Your task to perform on an android device: change notification settings in the gmail app Image 0: 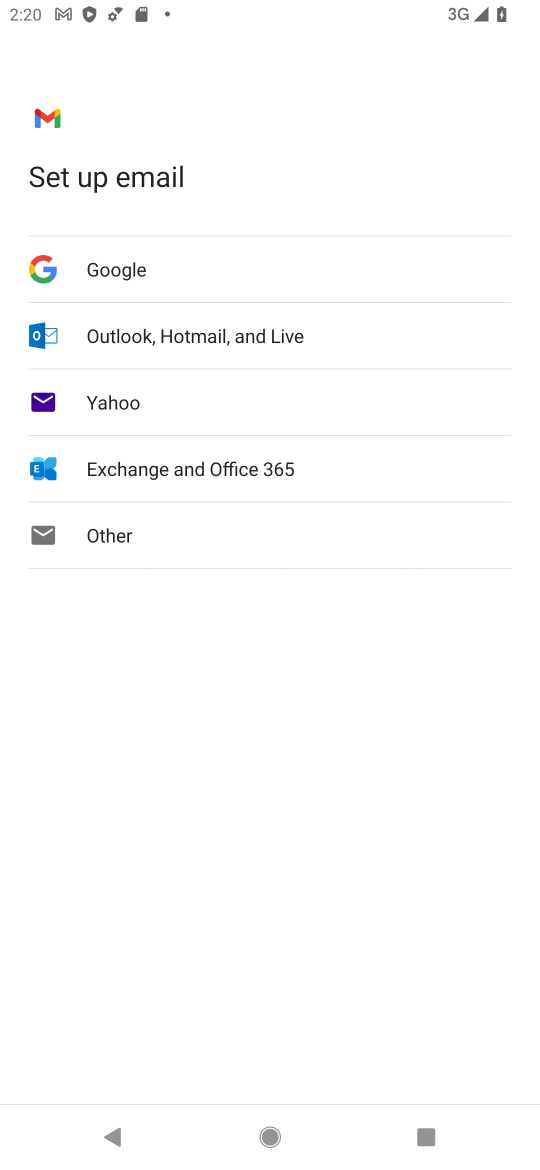
Step 0: press home button
Your task to perform on an android device: change notification settings in the gmail app Image 1: 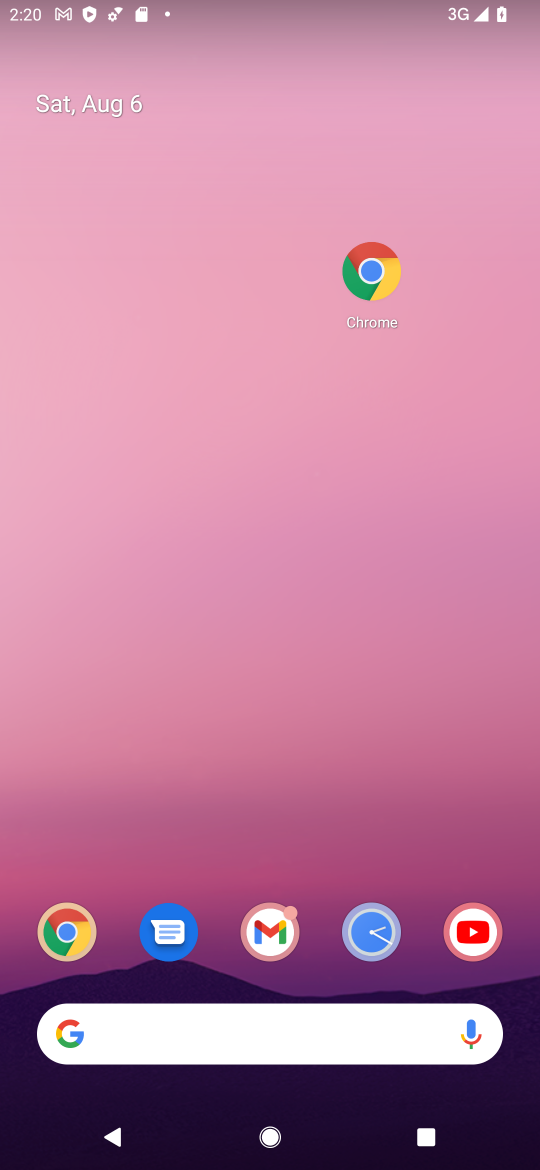
Step 1: click (270, 932)
Your task to perform on an android device: change notification settings in the gmail app Image 2: 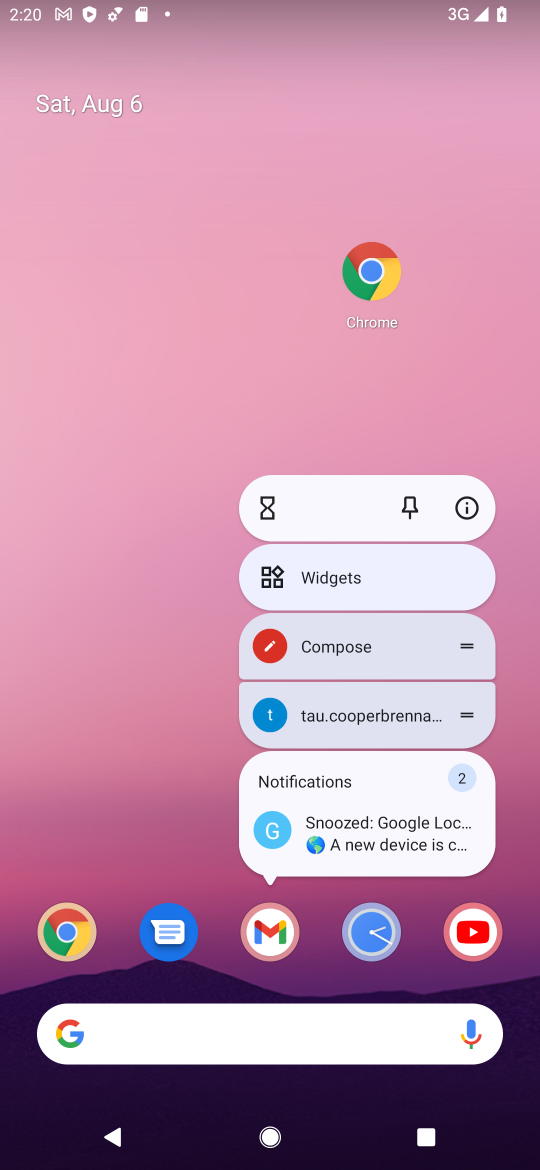
Step 2: click (460, 507)
Your task to perform on an android device: change notification settings in the gmail app Image 3: 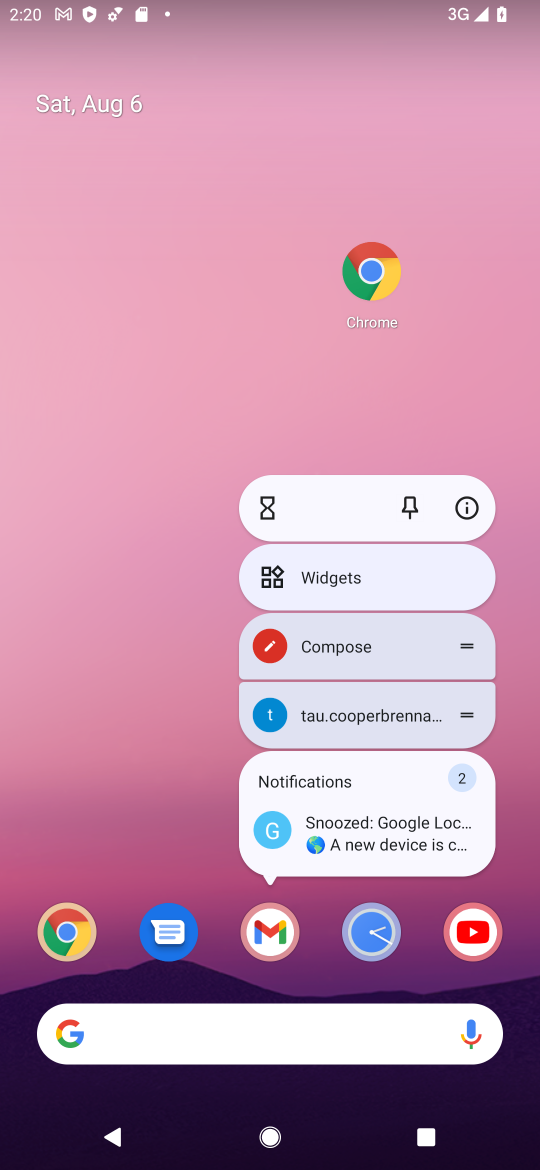
Step 3: click (468, 502)
Your task to perform on an android device: change notification settings in the gmail app Image 4: 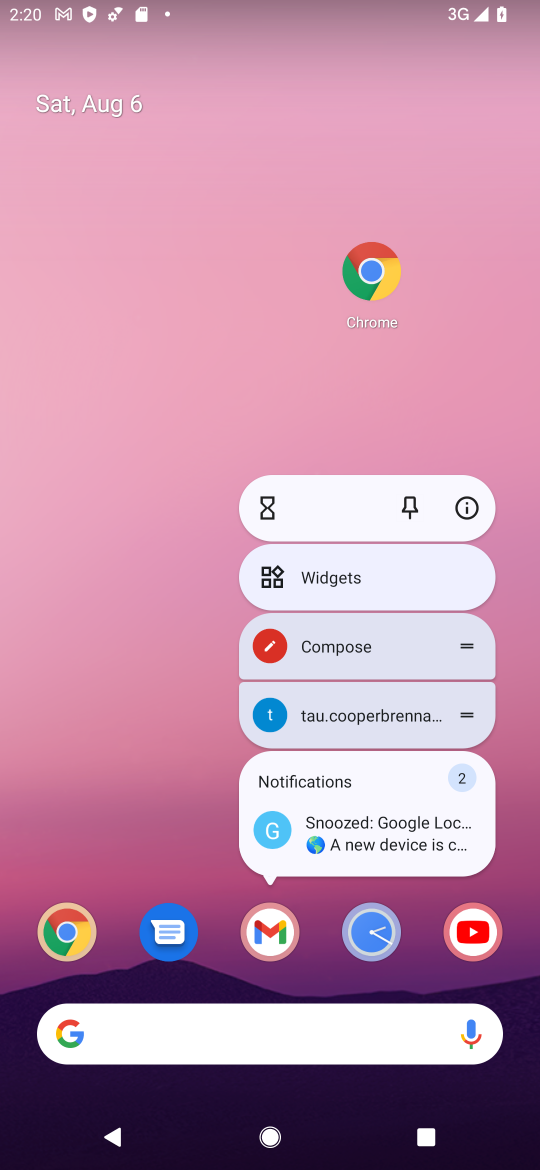
Step 4: click (468, 563)
Your task to perform on an android device: change notification settings in the gmail app Image 5: 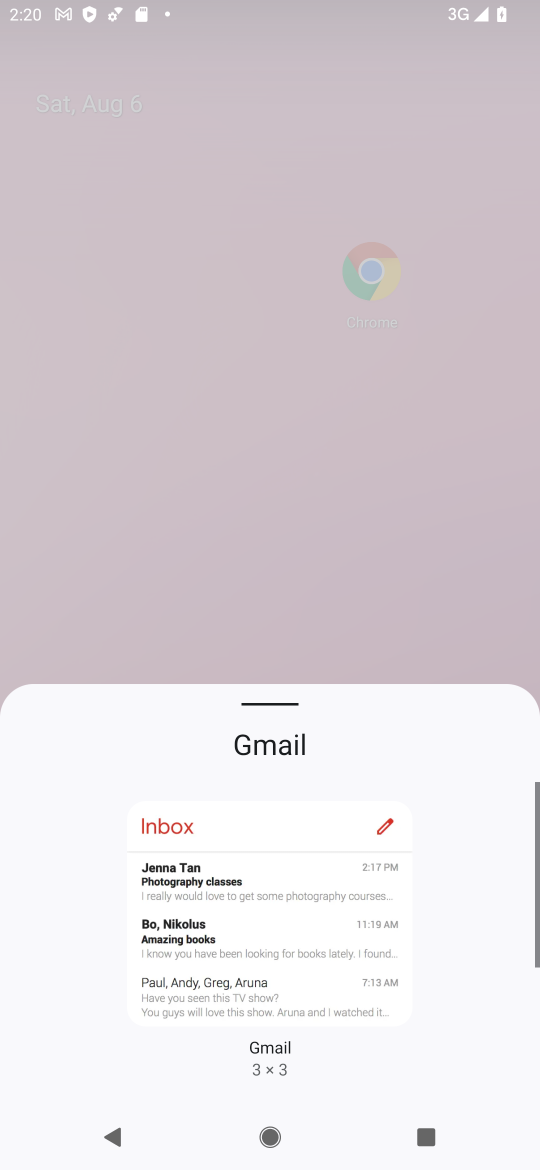
Step 5: click (295, 589)
Your task to perform on an android device: change notification settings in the gmail app Image 6: 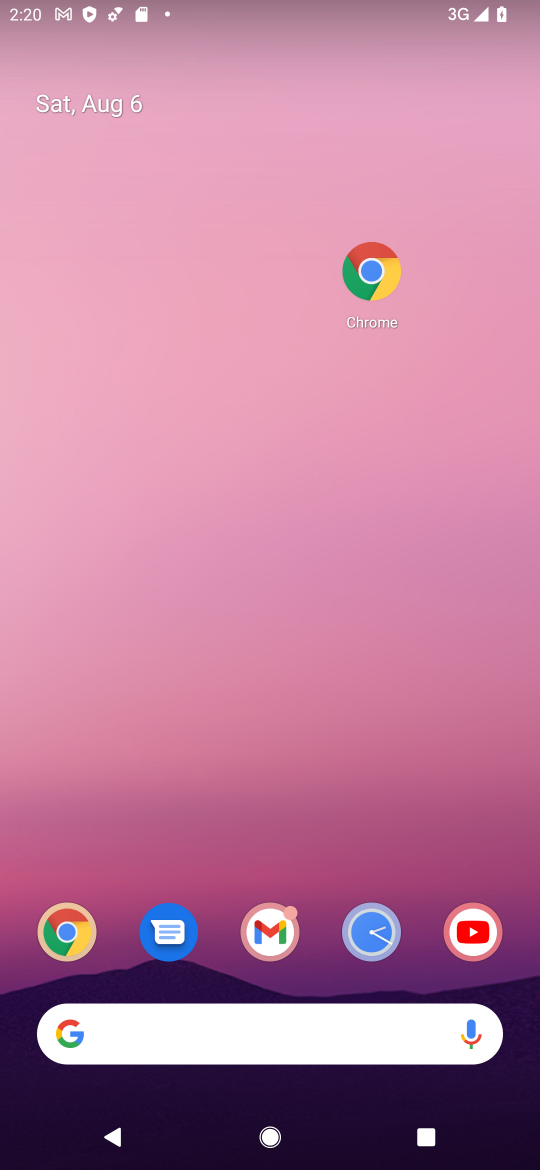
Step 6: click (265, 919)
Your task to perform on an android device: change notification settings in the gmail app Image 7: 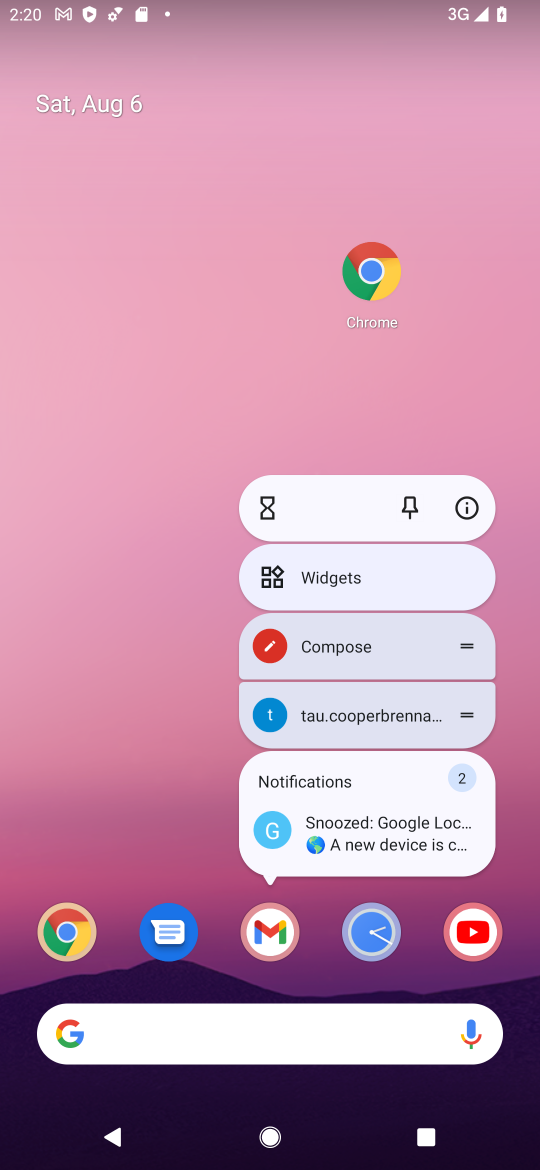
Step 7: click (471, 494)
Your task to perform on an android device: change notification settings in the gmail app Image 8: 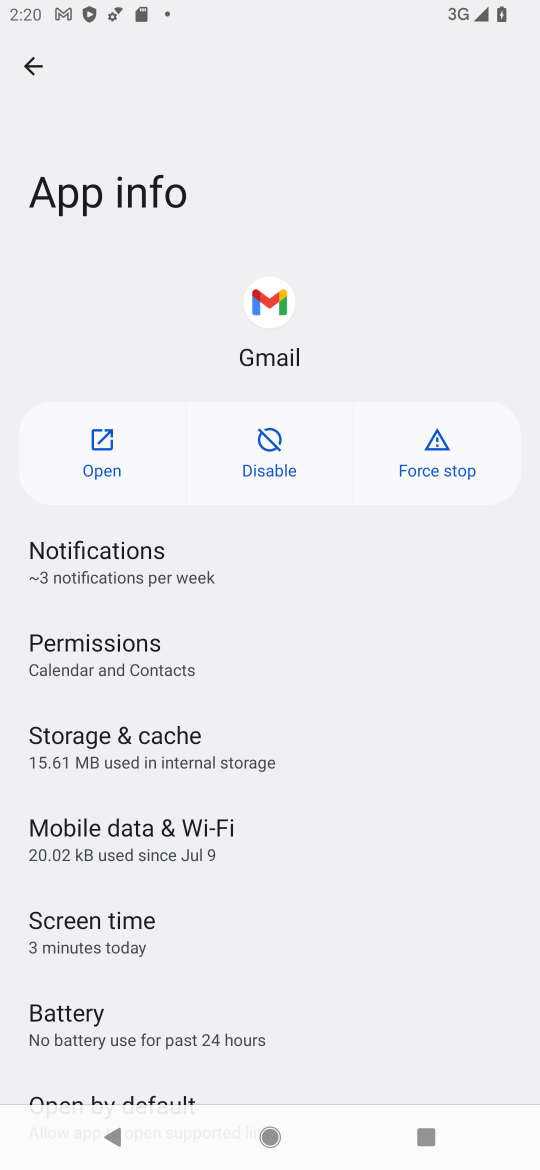
Step 8: click (213, 554)
Your task to perform on an android device: change notification settings in the gmail app Image 9: 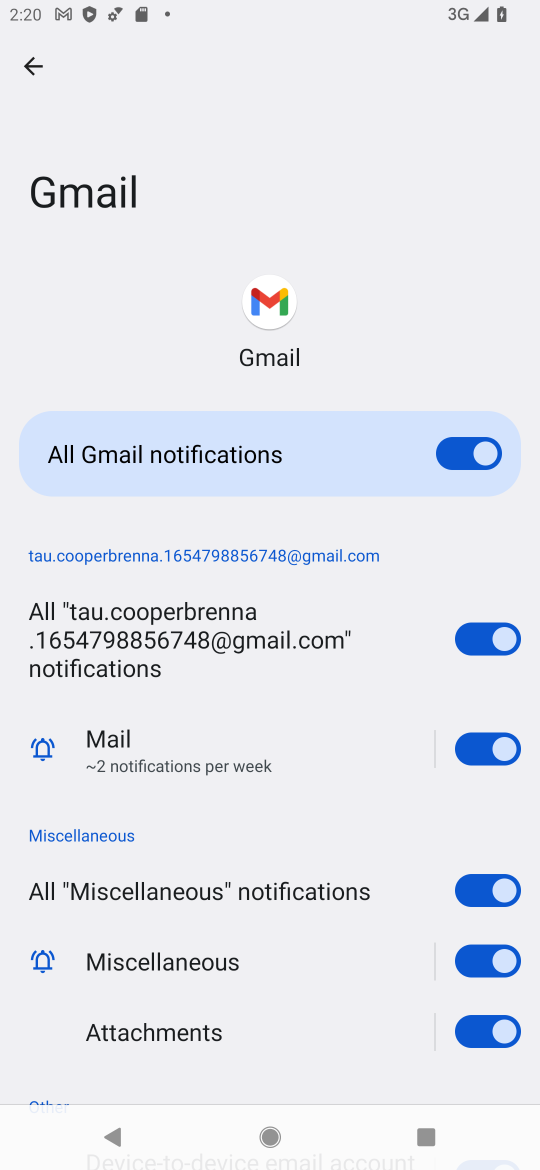
Step 9: click (350, 448)
Your task to perform on an android device: change notification settings in the gmail app Image 10: 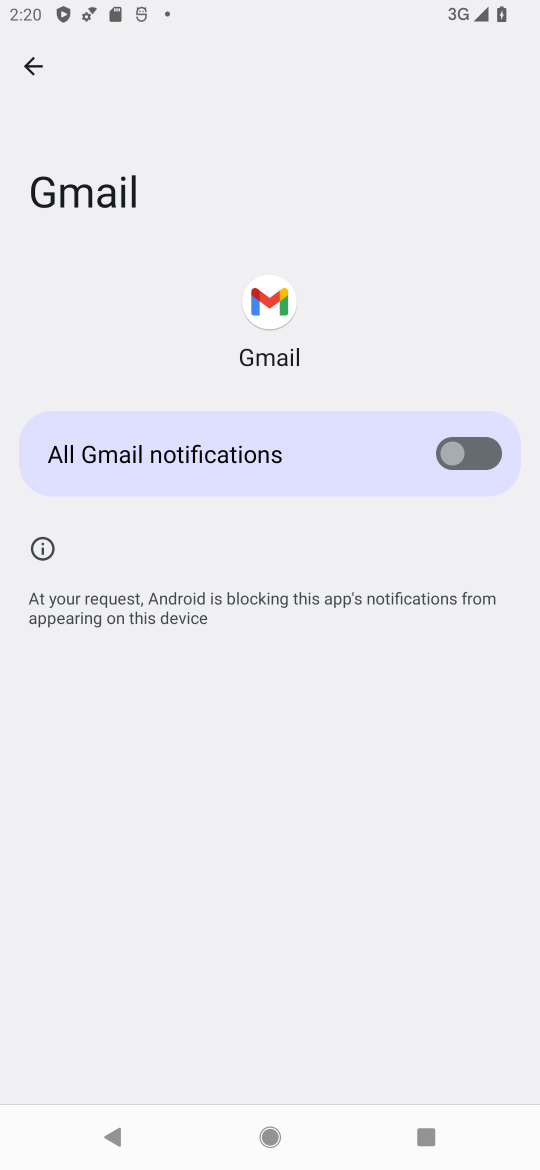
Step 10: task complete